Your task to perform on an android device: Open Maps and search for coffee Image 0: 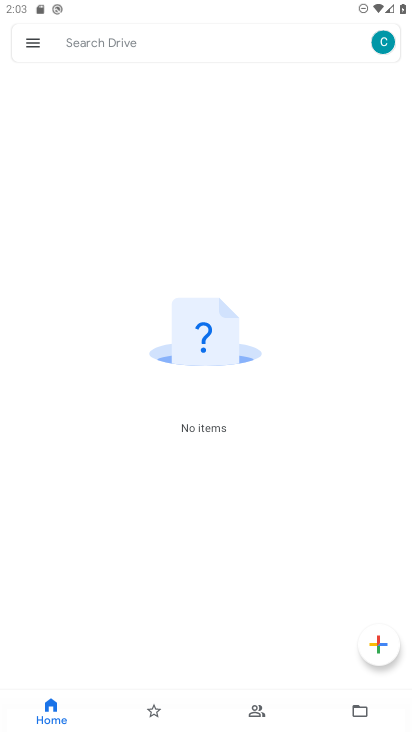
Step 0: press home button
Your task to perform on an android device: Open Maps and search for coffee Image 1: 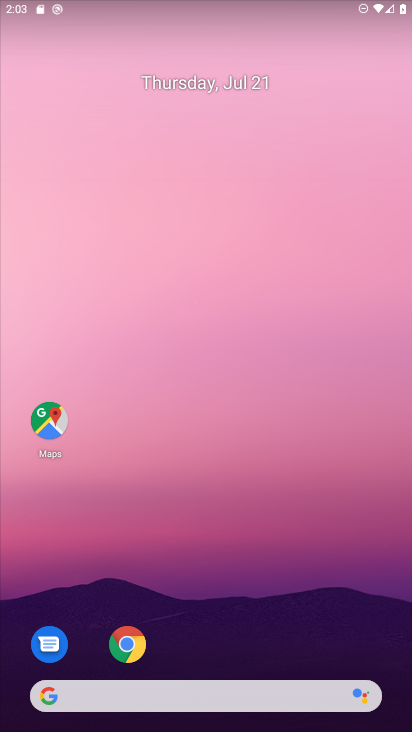
Step 1: click (54, 414)
Your task to perform on an android device: Open Maps and search for coffee Image 2: 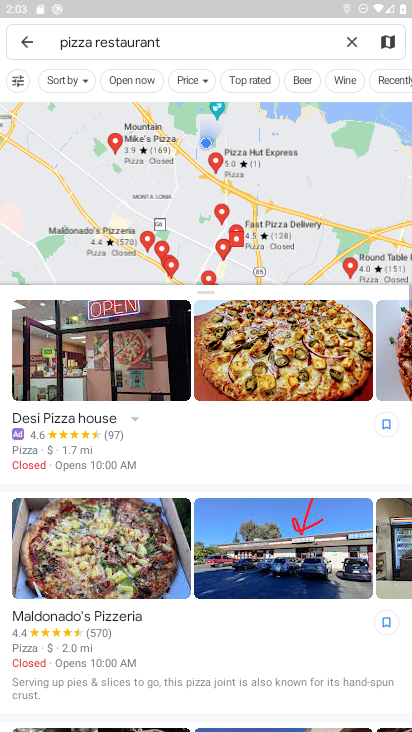
Step 2: click (114, 47)
Your task to perform on an android device: Open Maps and search for coffee Image 3: 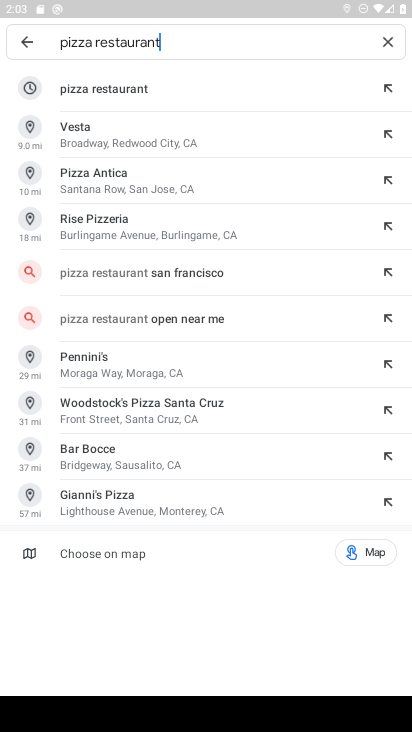
Step 3: click (389, 33)
Your task to perform on an android device: Open Maps and search for coffee Image 4: 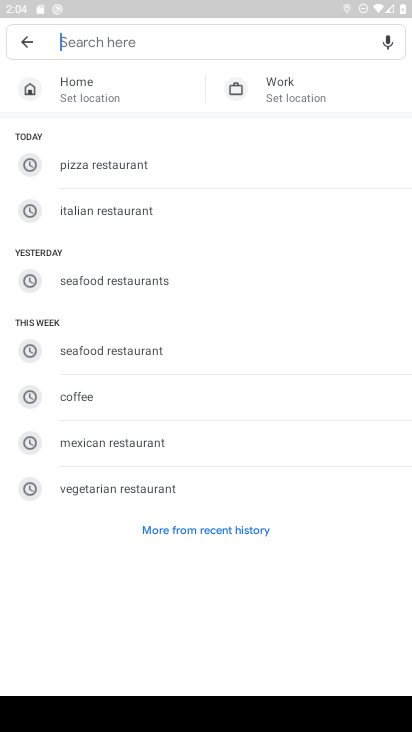
Step 4: type "coffee"
Your task to perform on an android device: Open Maps and search for coffee Image 5: 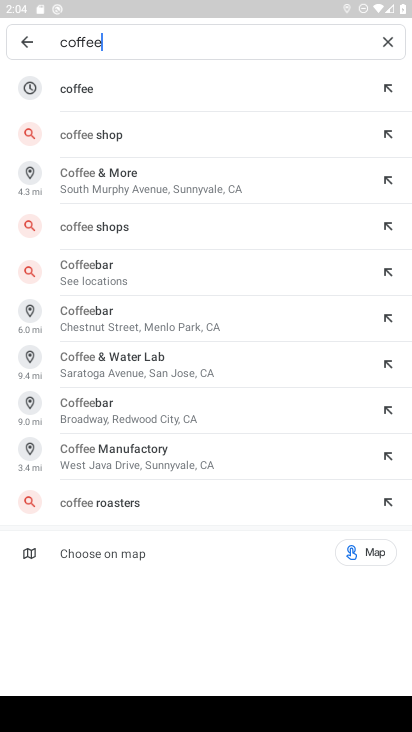
Step 5: click (110, 77)
Your task to perform on an android device: Open Maps and search for coffee Image 6: 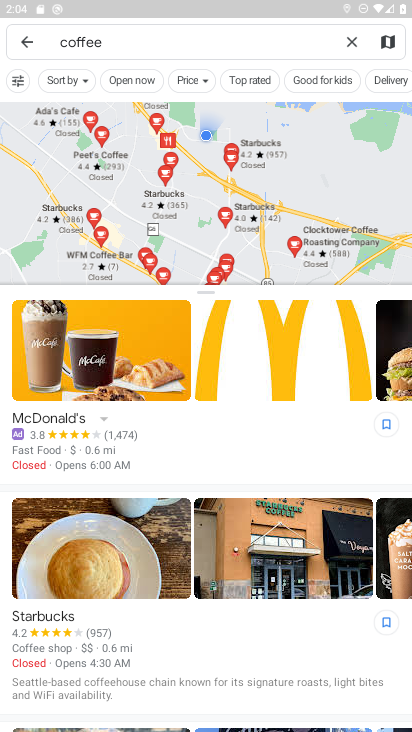
Step 6: task complete